Your task to perform on an android device: Check the news Image 0: 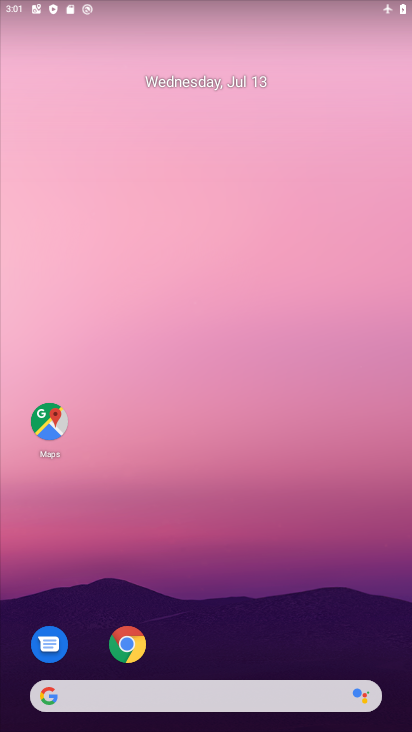
Step 0: drag from (249, 573) to (153, 58)
Your task to perform on an android device: Check the news Image 1: 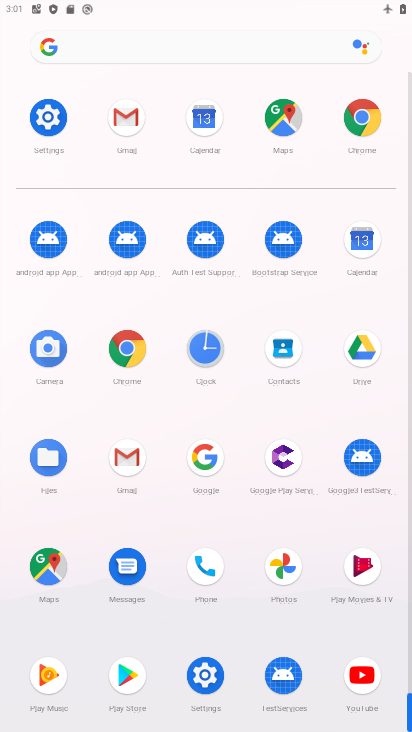
Step 1: click (369, 119)
Your task to perform on an android device: Check the news Image 2: 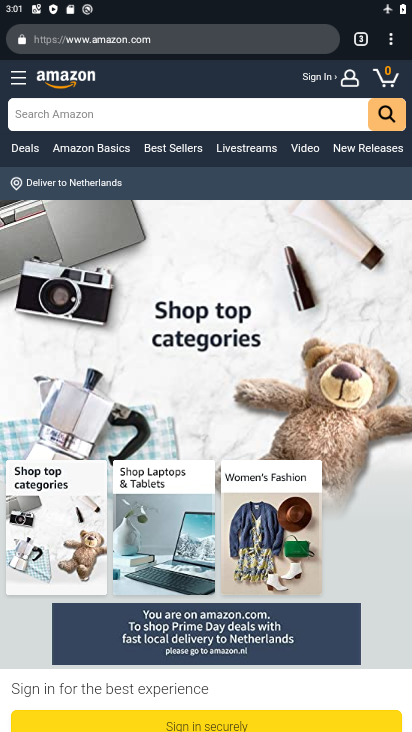
Step 2: click (155, 35)
Your task to perform on an android device: Check the news Image 3: 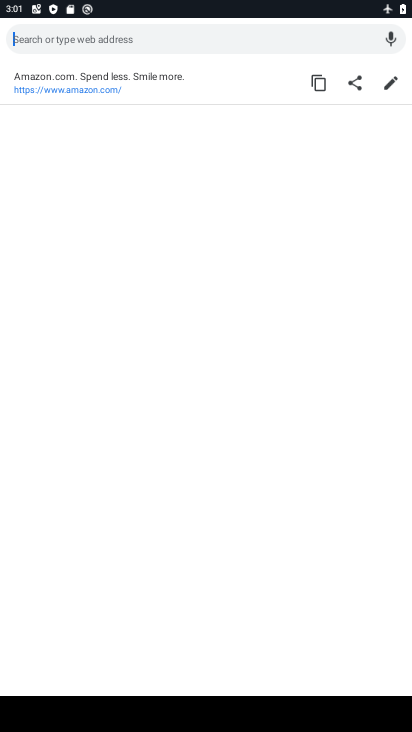
Step 3: type "news"
Your task to perform on an android device: Check the news Image 4: 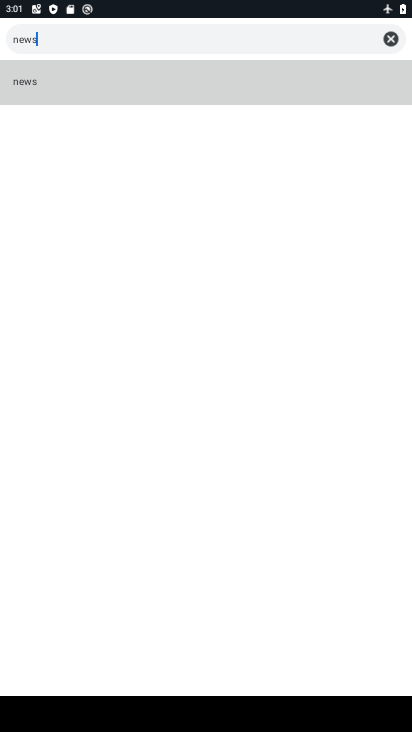
Step 4: click (35, 86)
Your task to perform on an android device: Check the news Image 5: 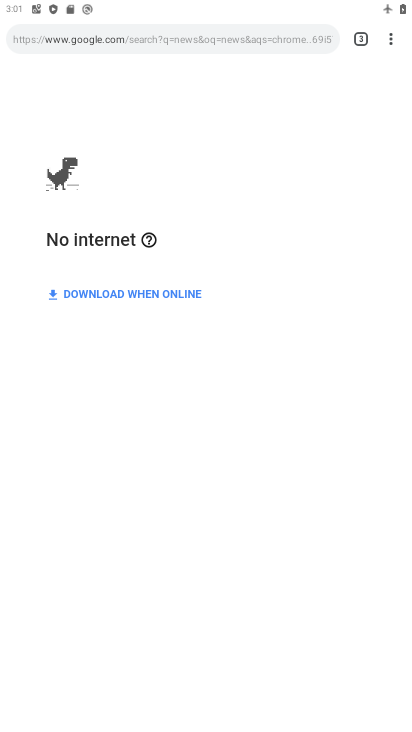
Step 5: task complete